Your task to perform on an android device: Open location settings Image 0: 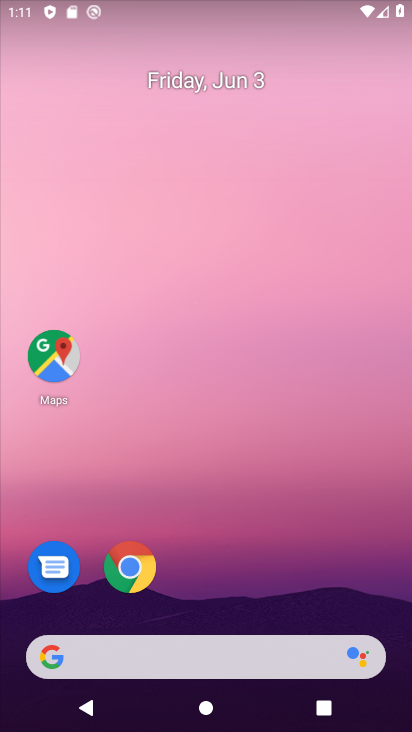
Step 0: drag from (248, 617) to (194, 8)
Your task to perform on an android device: Open location settings Image 1: 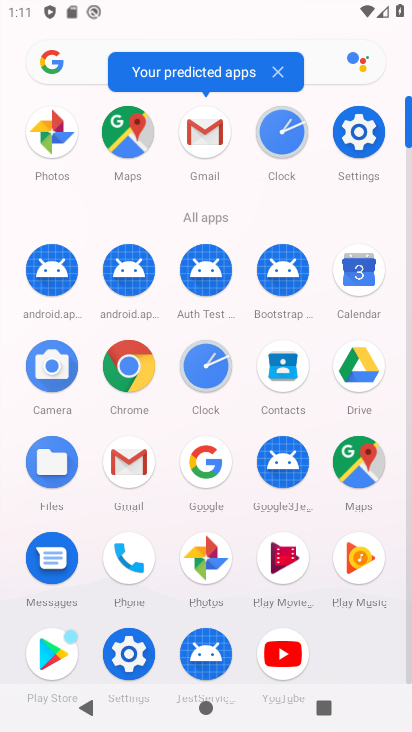
Step 1: click (365, 132)
Your task to perform on an android device: Open location settings Image 2: 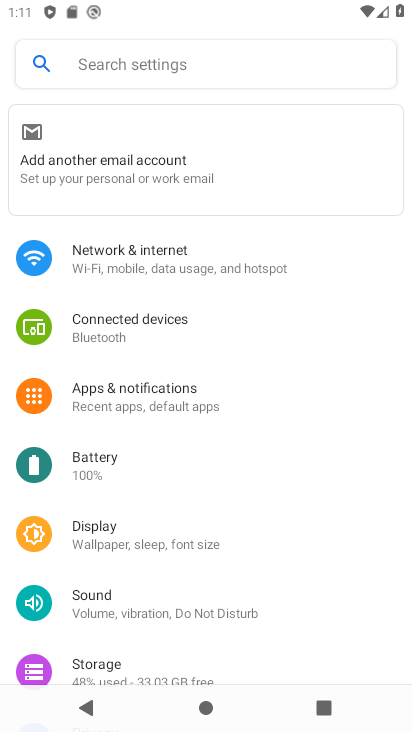
Step 2: task complete